Your task to perform on an android device: Open wifi settings Image 0: 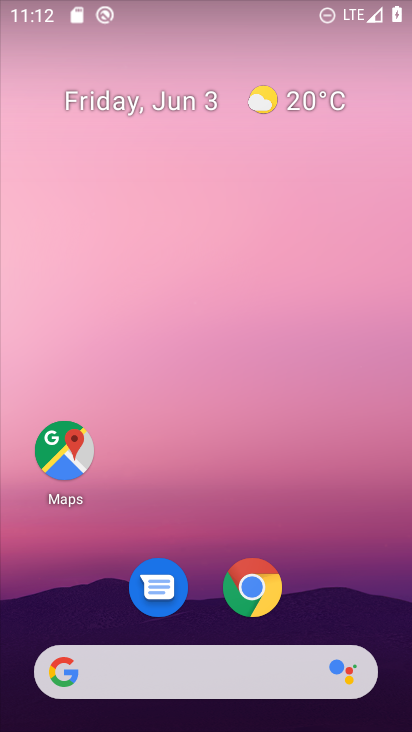
Step 0: drag from (324, 490) to (191, 33)
Your task to perform on an android device: Open wifi settings Image 1: 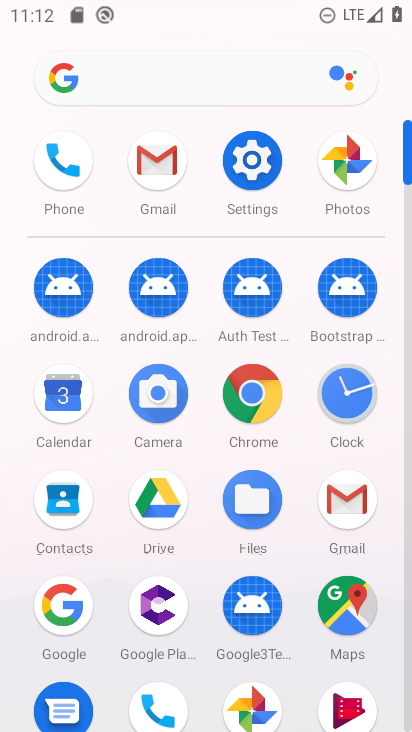
Step 1: click (242, 160)
Your task to perform on an android device: Open wifi settings Image 2: 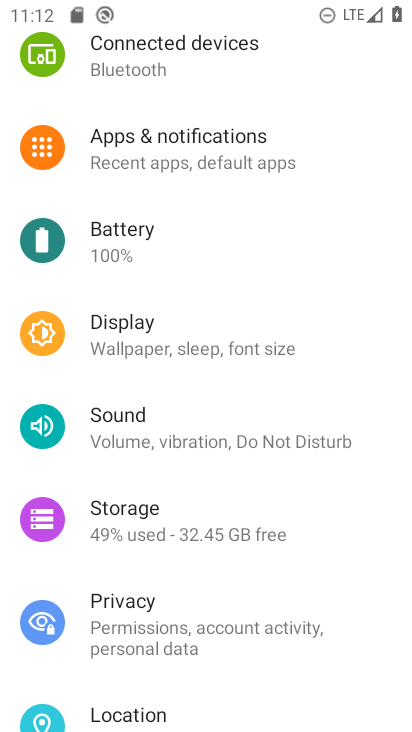
Step 2: drag from (277, 186) to (256, 731)
Your task to perform on an android device: Open wifi settings Image 3: 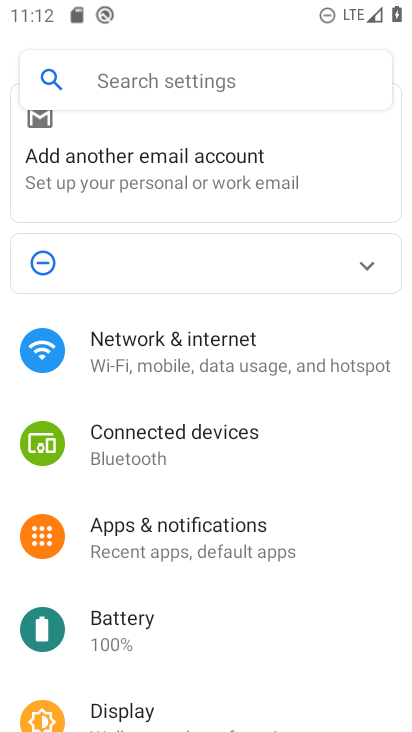
Step 3: click (254, 354)
Your task to perform on an android device: Open wifi settings Image 4: 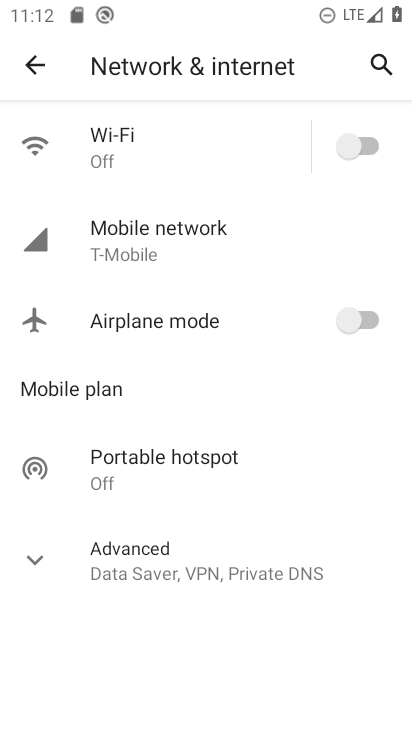
Step 4: click (125, 141)
Your task to perform on an android device: Open wifi settings Image 5: 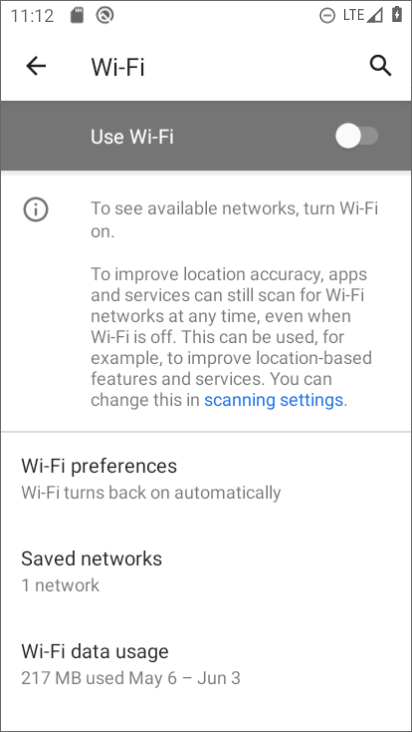
Step 5: task complete